Your task to perform on an android device: Go to internet settings Image 0: 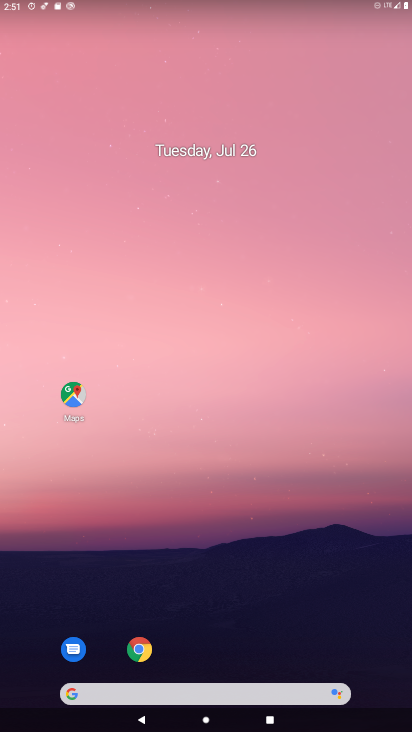
Step 0: drag from (301, 580) to (244, 45)
Your task to perform on an android device: Go to internet settings Image 1: 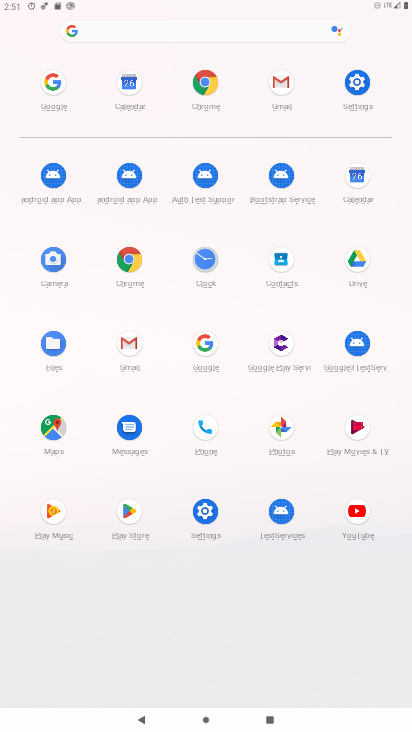
Step 1: click (349, 85)
Your task to perform on an android device: Go to internet settings Image 2: 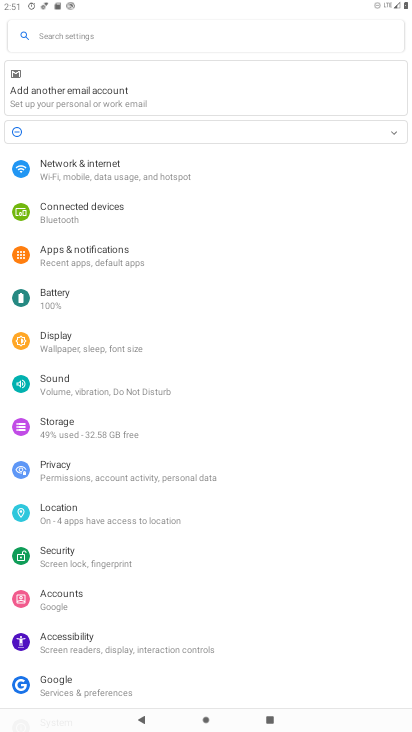
Step 2: click (95, 185)
Your task to perform on an android device: Go to internet settings Image 3: 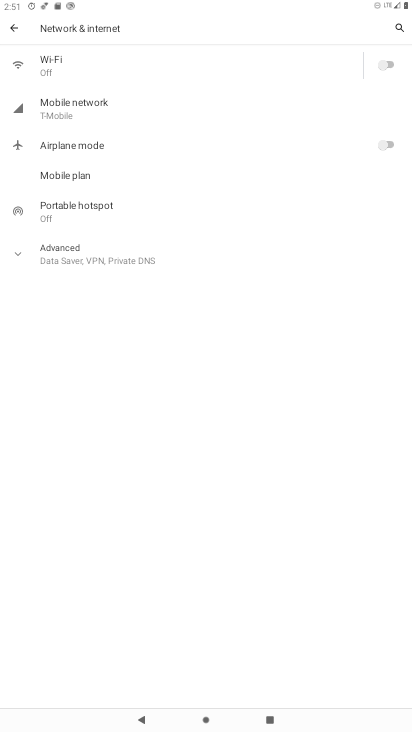
Step 3: task complete